Your task to perform on an android device: Show me recent news Image 0: 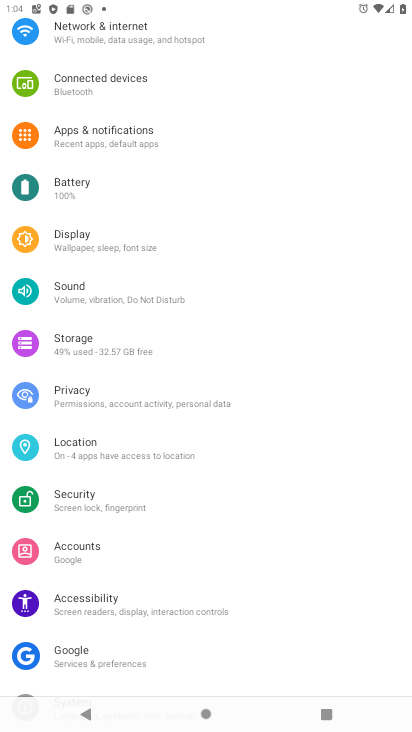
Step 0: press home button
Your task to perform on an android device: Show me recent news Image 1: 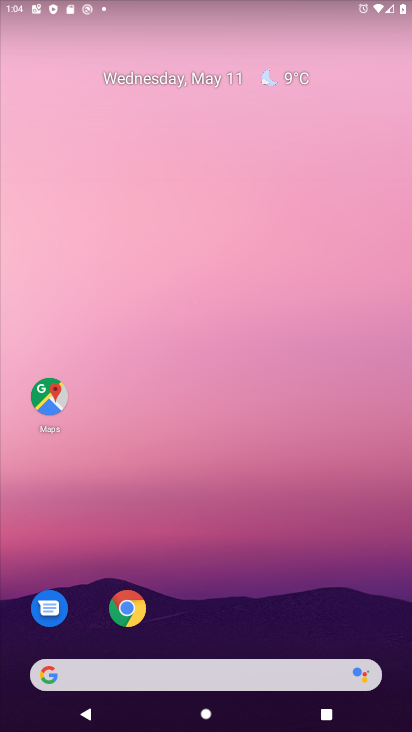
Step 1: drag from (182, 539) to (211, 54)
Your task to perform on an android device: Show me recent news Image 2: 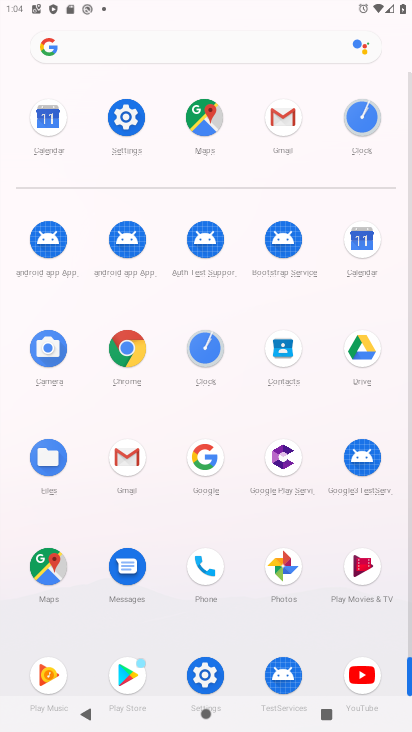
Step 2: click (201, 464)
Your task to perform on an android device: Show me recent news Image 3: 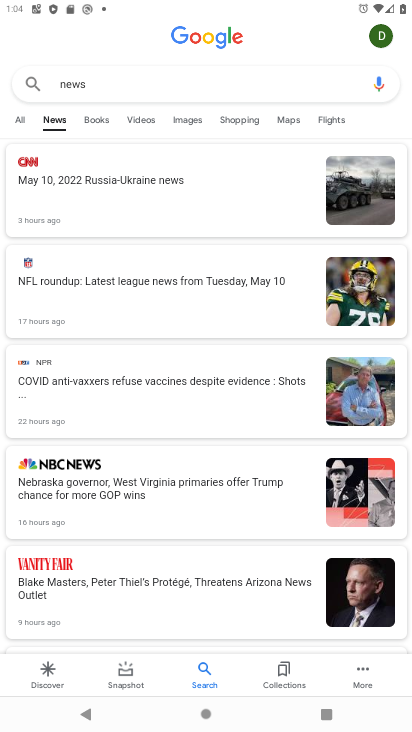
Step 3: task complete